Your task to perform on an android device: Open ESPN.com Image 0: 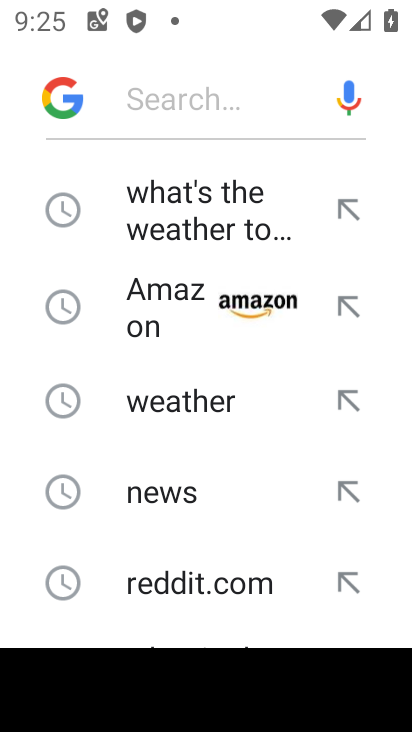
Step 0: press home button
Your task to perform on an android device: Open ESPN.com Image 1: 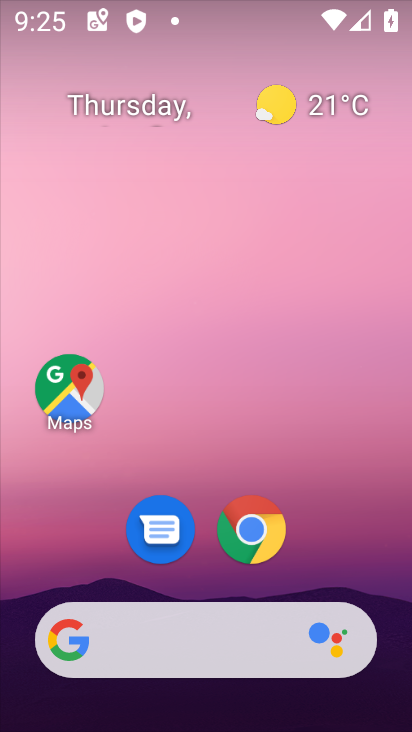
Step 1: click (209, 636)
Your task to perform on an android device: Open ESPN.com Image 2: 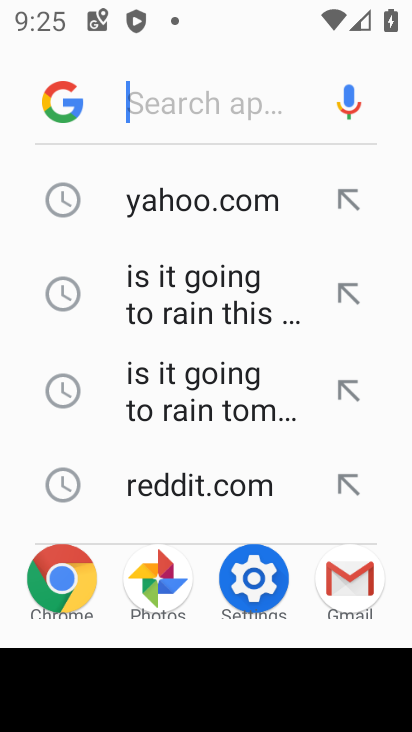
Step 2: type "espn.com"
Your task to perform on an android device: Open ESPN.com Image 3: 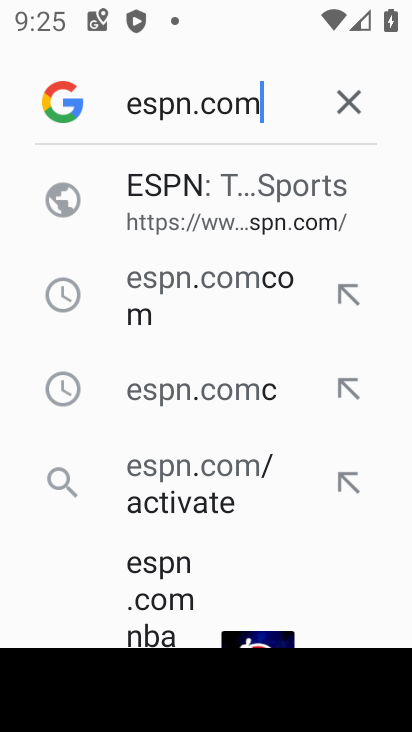
Step 3: click (222, 202)
Your task to perform on an android device: Open ESPN.com Image 4: 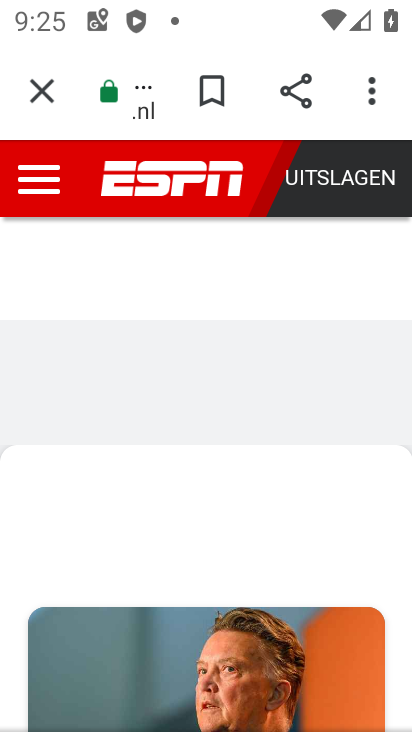
Step 4: task complete